Your task to perform on an android device: allow cookies in the chrome app Image 0: 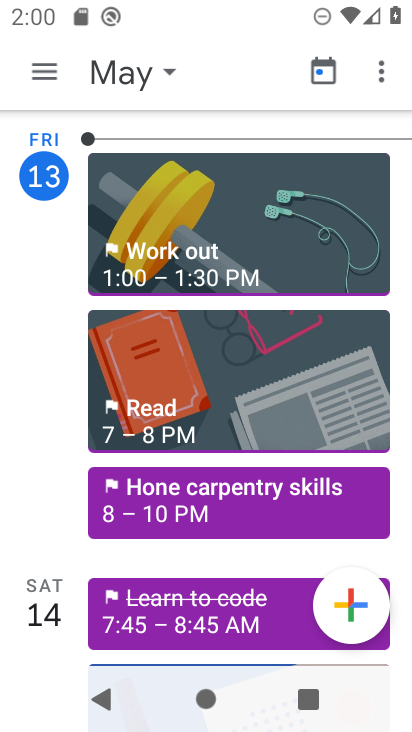
Step 0: press home button
Your task to perform on an android device: allow cookies in the chrome app Image 1: 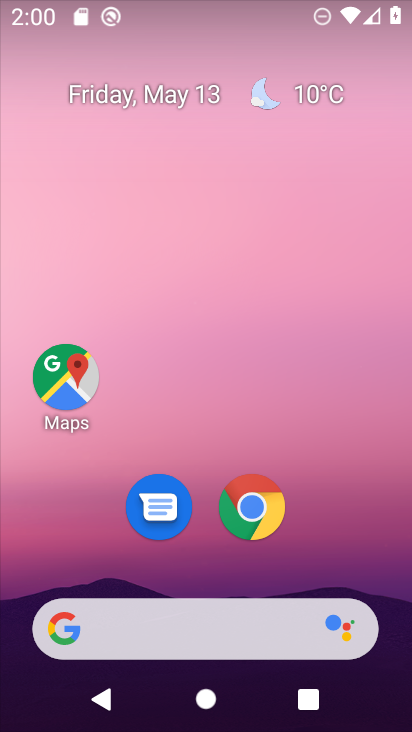
Step 1: drag from (310, 547) to (365, 23)
Your task to perform on an android device: allow cookies in the chrome app Image 2: 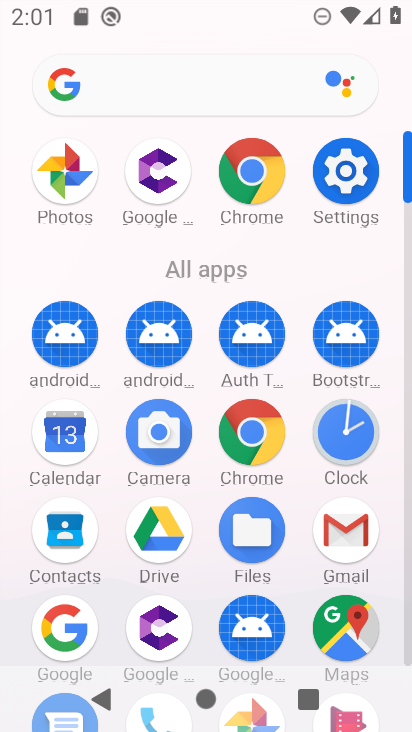
Step 2: click (237, 177)
Your task to perform on an android device: allow cookies in the chrome app Image 3: 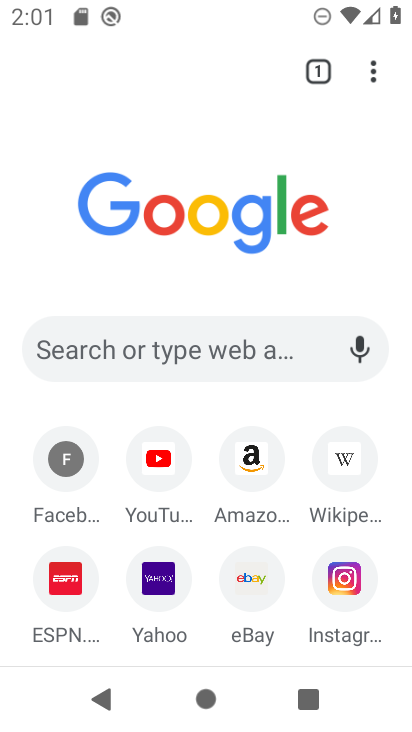
Step 3: drag from (377, 80) to (140, 490)
Your task to perform on an android device: allow cookies in the chrome app Image 4: 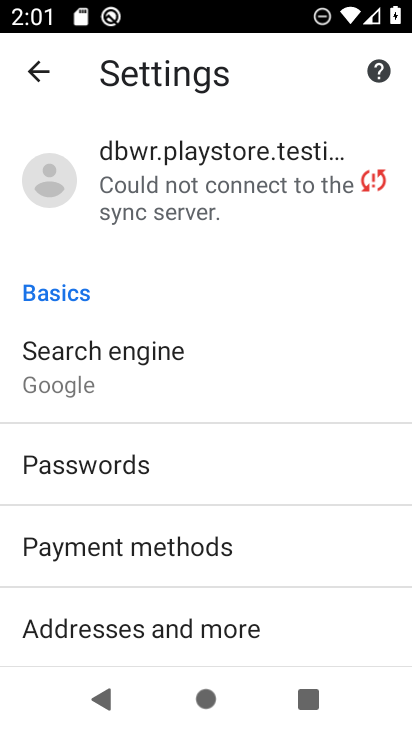
Step 4: drag from (124, 521) to (160, 191)
Your task to perform on an android device: allow cookies in the chrome app Image 5: 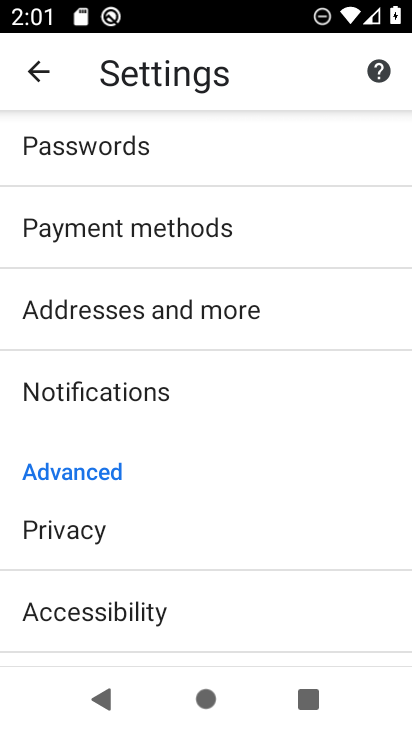
Step 5: drag from (98, 534) to (162, 161)
Your task to perform on an android device: allow cookies in the chrome app Image 6: 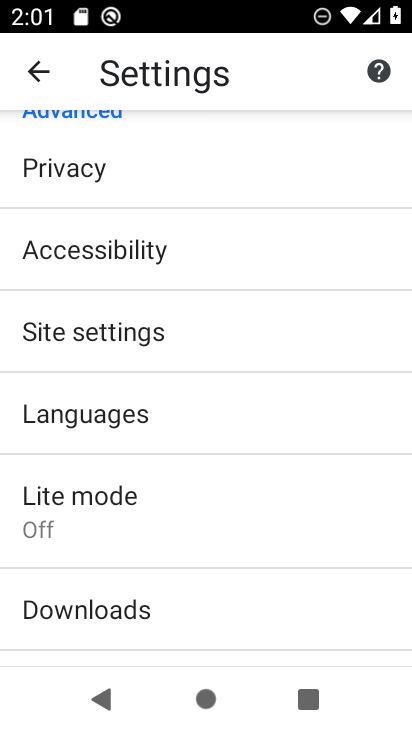
Step 6: drag from (129, 549) to (151, 244)
Your task to perform on an android device: allow cookies in the chrome app Image 7: 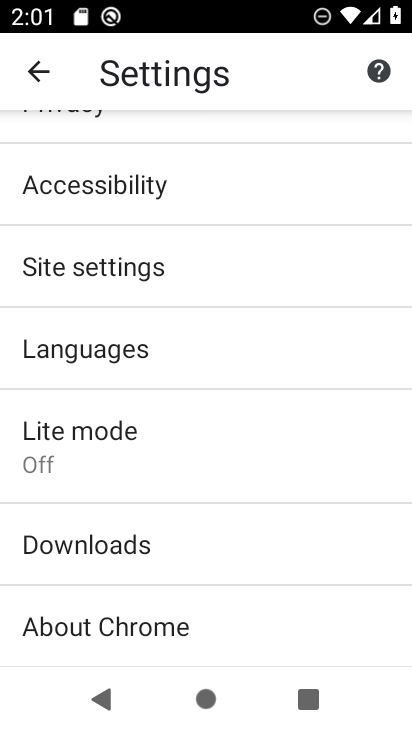
Step 7: click (124, 275)
Your task to perform on an android device: allow cookies in the chrome app Image 8: 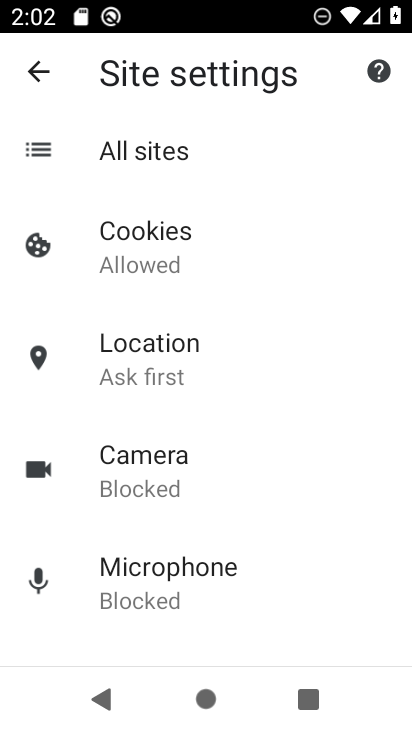
Step 8: click (124, 275)
Your task to perform on an android device: allow cookies in the chrome app Image 9: 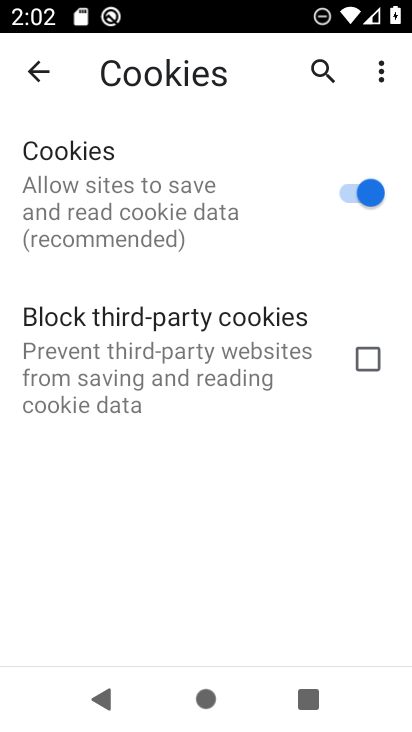
Step 9: task complete